Your task to perform on an android device: clear all cookies in the chrome app Image 0: 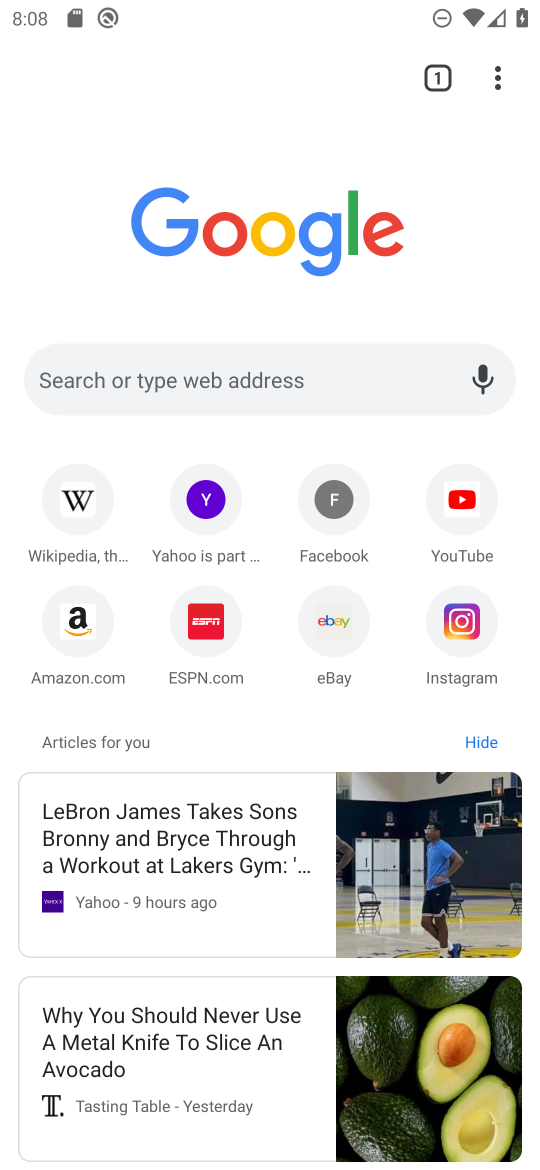
Step 0: press home button
Your task to perform on an android device: clear all cookies in the chrome app Image 1: 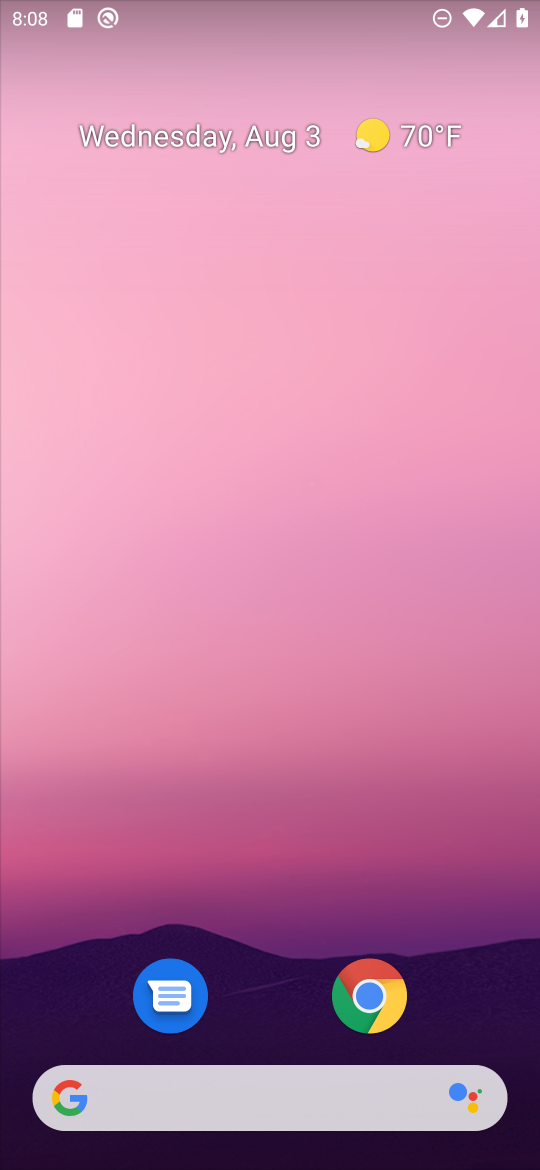
Step 1: click (377, 986)
Your task to perform on an android device: clear all cookies in the chrome app Image 2: 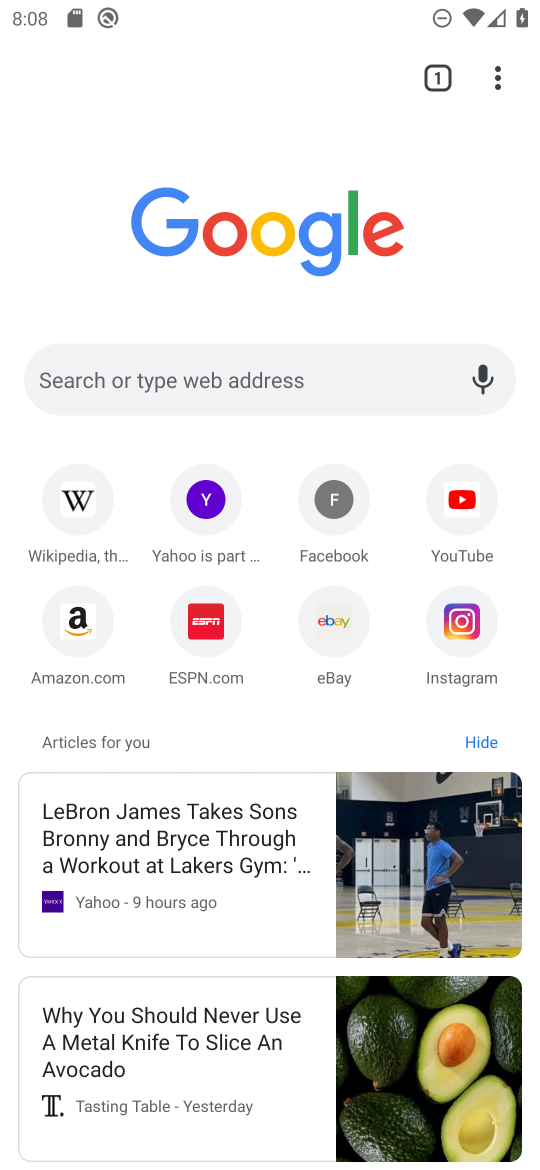
Step 2: click (496, 69)
Your task to perform on an android device: clear all cookies in the chrome app Image 3: 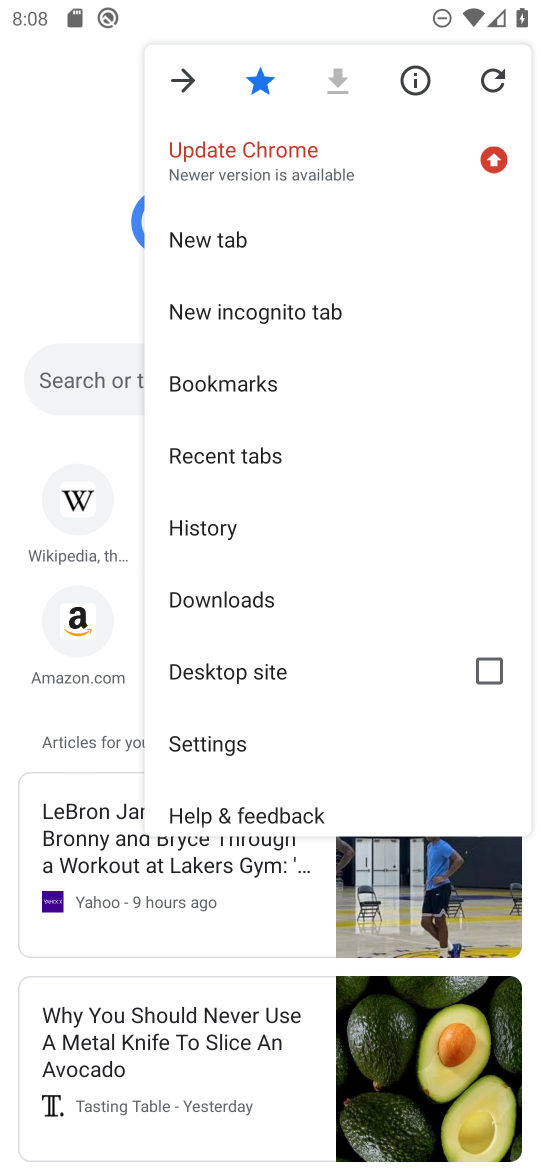
Step 3: click (218, 517)
Your task to perform on an android device: clear all cookies in the chrome app Image 4: 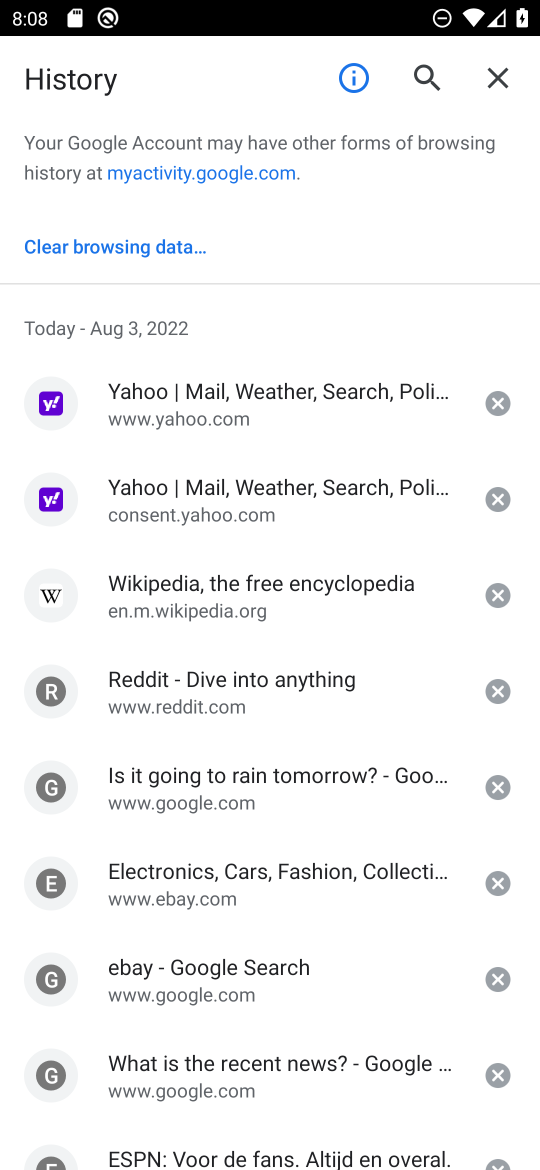
Step 4: click (133, 243)
Your task to perform on an android device: clear all cookies in the chrome app Image 5: 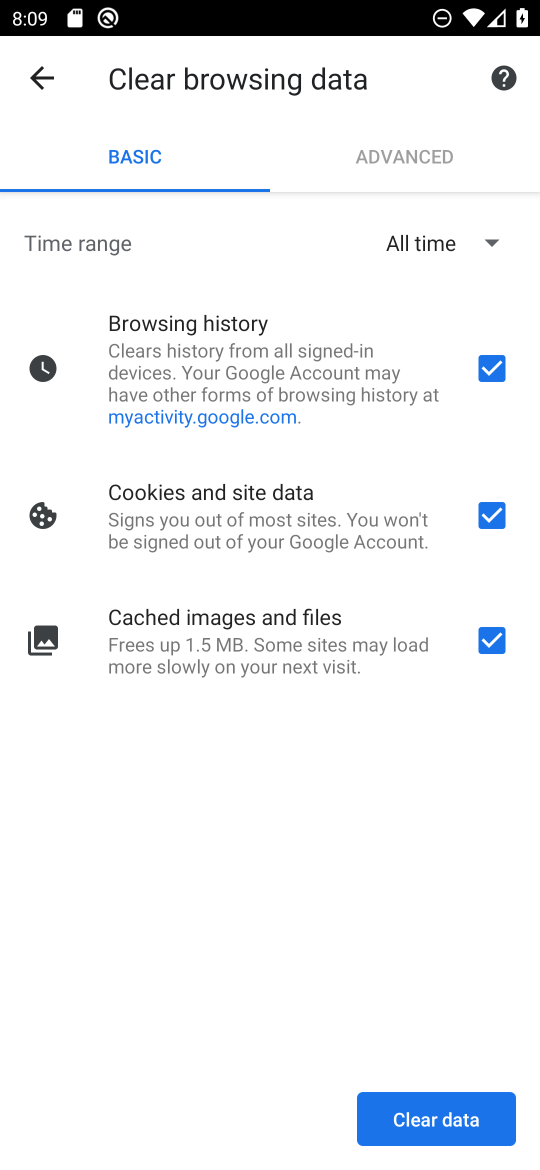
Step 5: click (505, 368)
Your task to perform on an android device: clear all cookies in the chrome app Image 6: 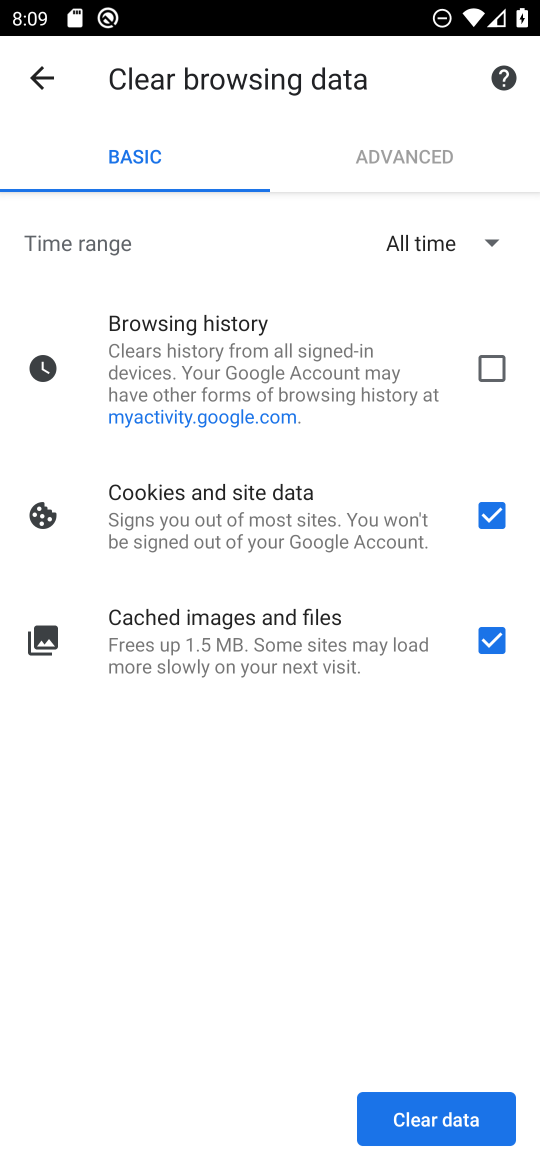
Step 6: click (497, 643)
Your task to perform on an android device: clear all cookies in the chrome app Image 7: 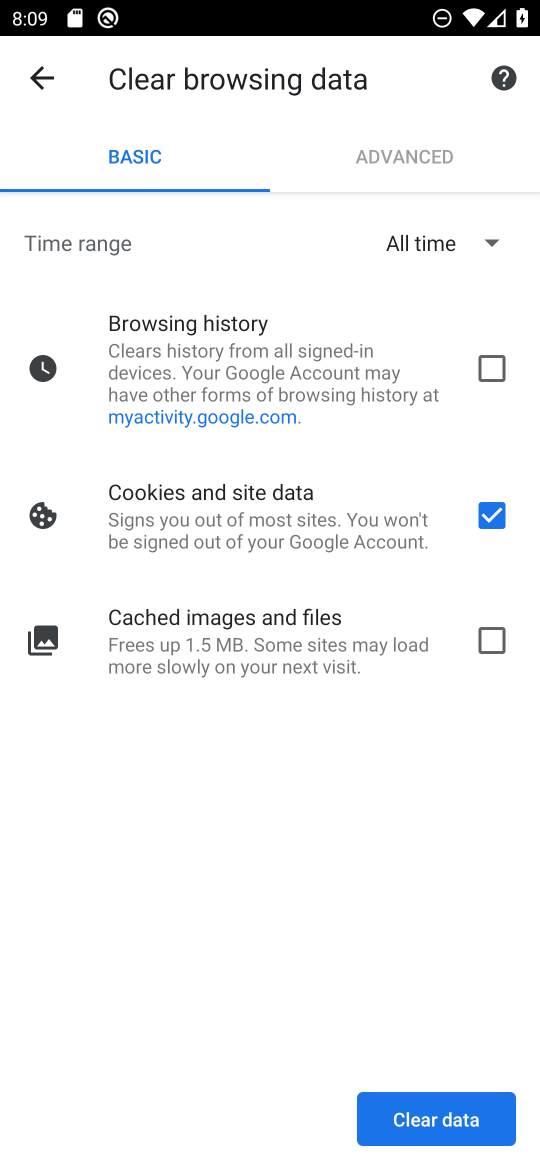
Step 7: click (450, 1112)
Your task to perform on an android device: clear all cookies in the chrome app Image 8: 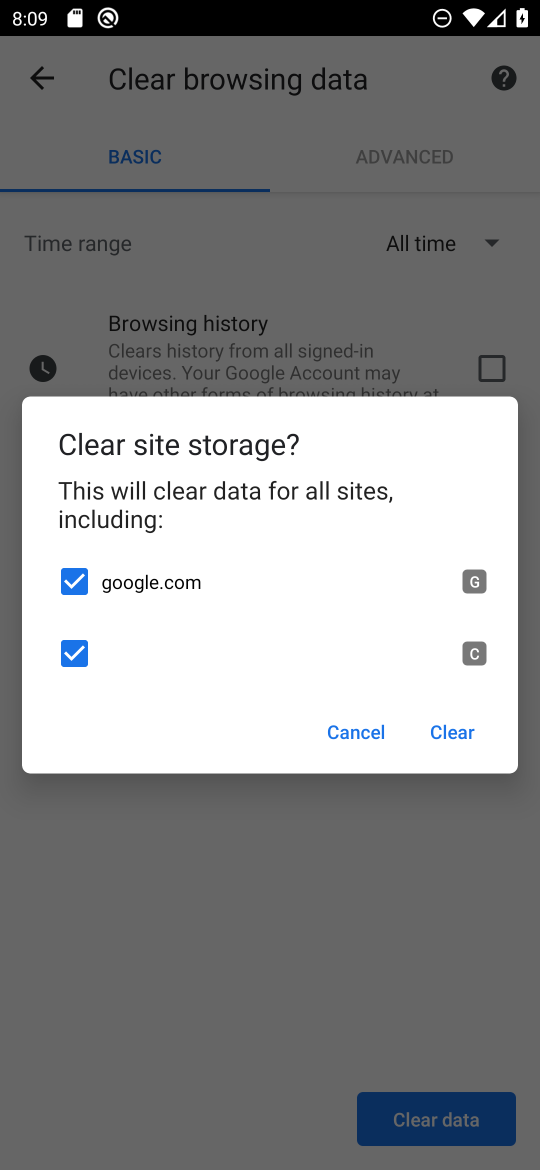
Step 8: click (454, 724)
Your task to perform on an android device: clear all cookies in the chrome app Image 9: 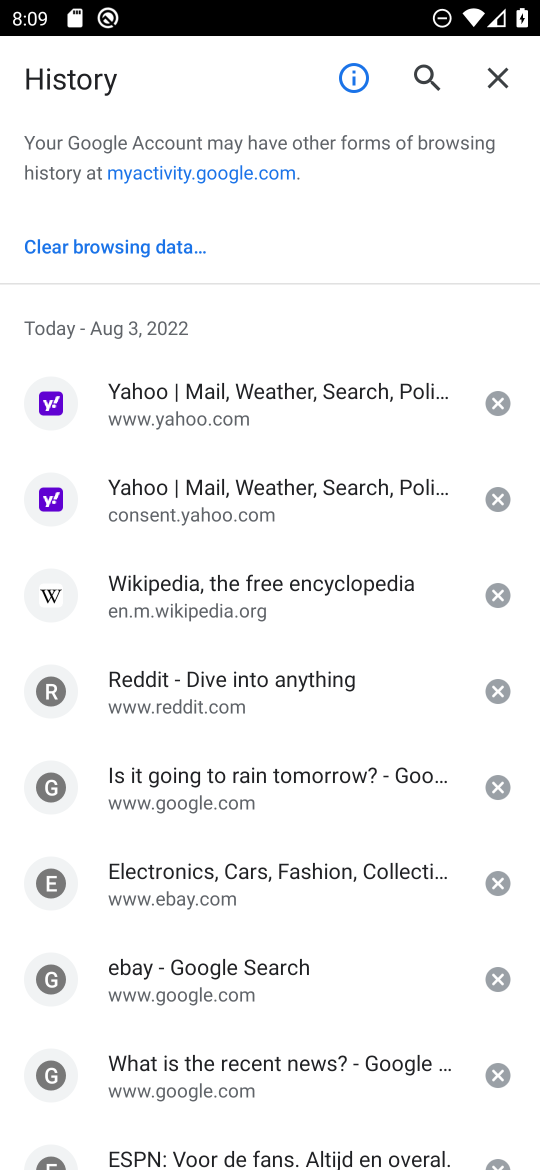
Step 9: task complete